Your task to perform on an android device: Open the calendar app, open the side menu, and click the "Day" option Image 0: 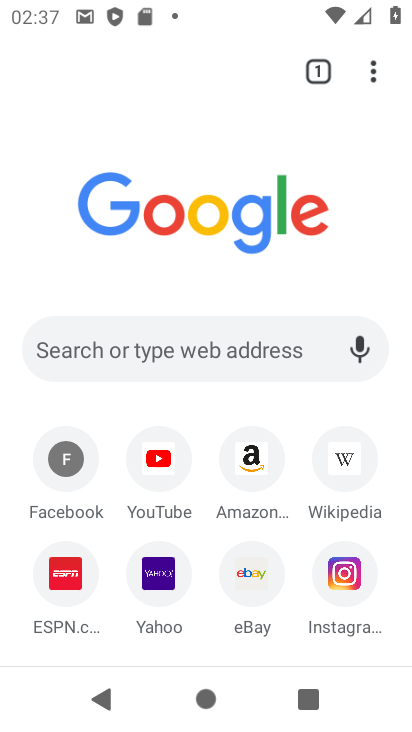
Step 0: press home button
Your task to perform on an android device: Open the calendar app, open the side menu, and click the "Day" option Image 1: 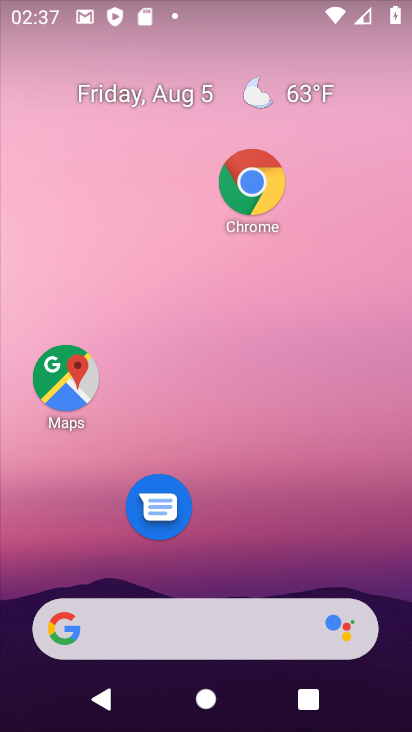
Step 1: drag from (228, 564) to (214, 2)
Your task to perform on an android device: Open the calendar app, open the side menu, and click the "Day" option Image 2: 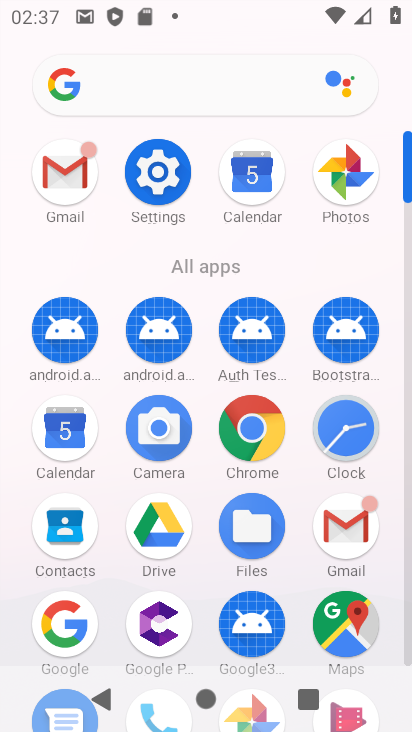
Step 2: click (73, 443)
Your task to perform on an android device: Open the calendar app, open the side menu, and click the "Day" option Image 3: 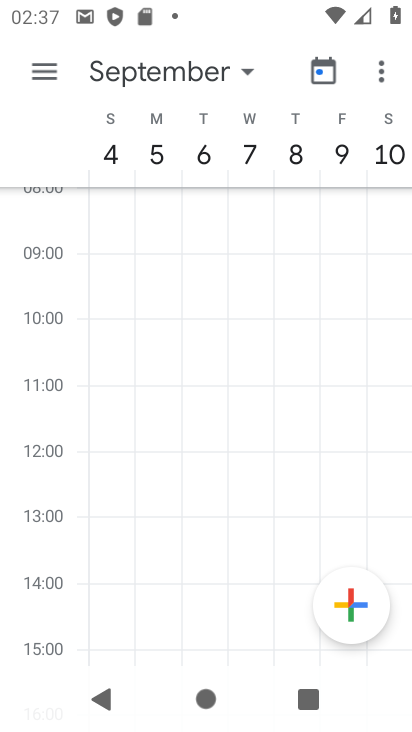
Step 3: click (47, 64)
Your task to perform on an android device: Open the calendar app, open the side menu, and click the "Day" option Image 4: 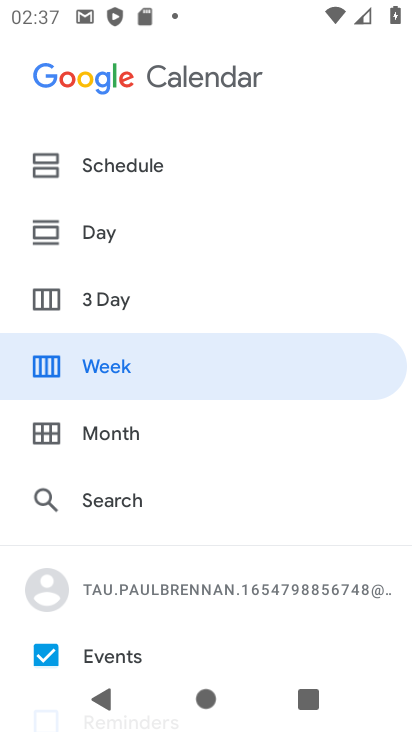
Step 4: click (102, 233)
Your task to perform on an android device: Open the calendar app, open the side menu, and click the "Day" option Image 5: 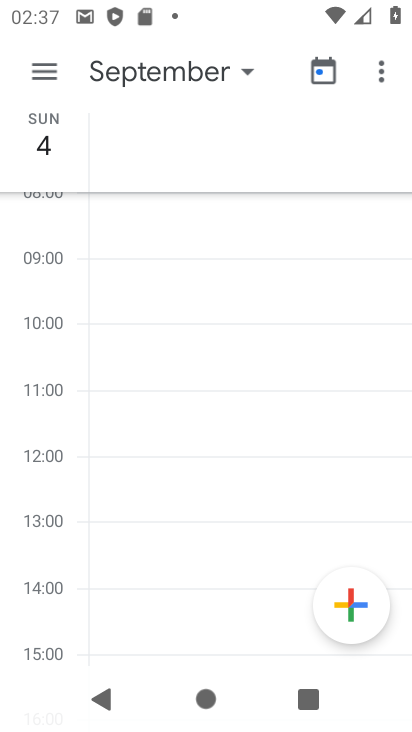
Step 5: task complete